Your task to perform on an android device: What is the news today? Image 0: 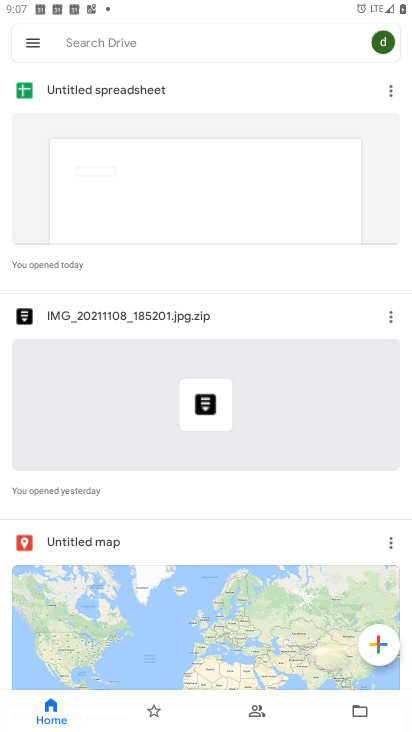
Step 0: press home button
Your task to perform on an android device: What is the news today? Image 1: 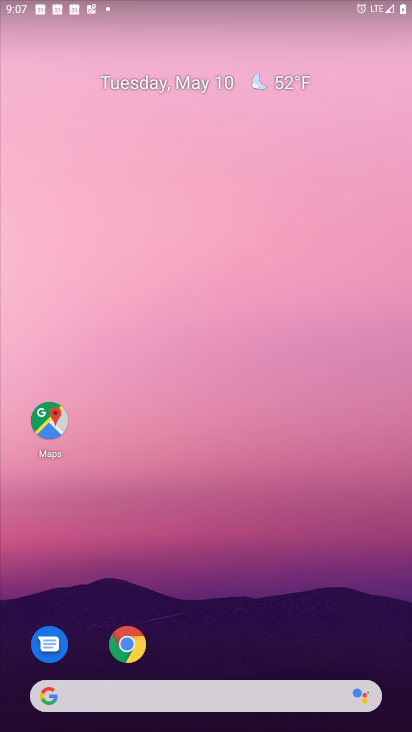
Step 1: task complete